Your task to perform on an android device: check android version Image 0: 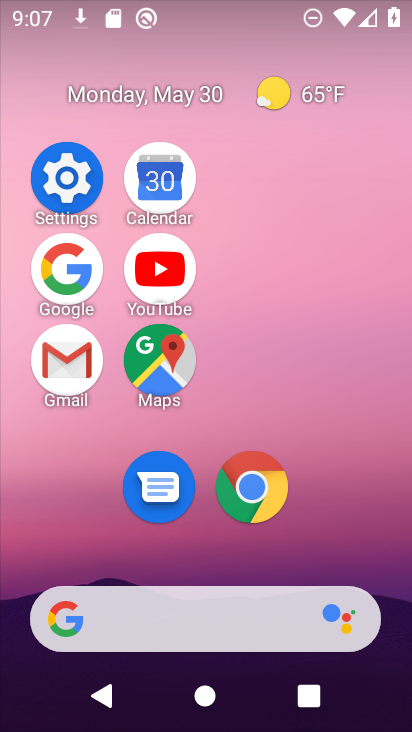
Step 0: click (80, 174)
Your task to perform on an android device: check android version Image 1: 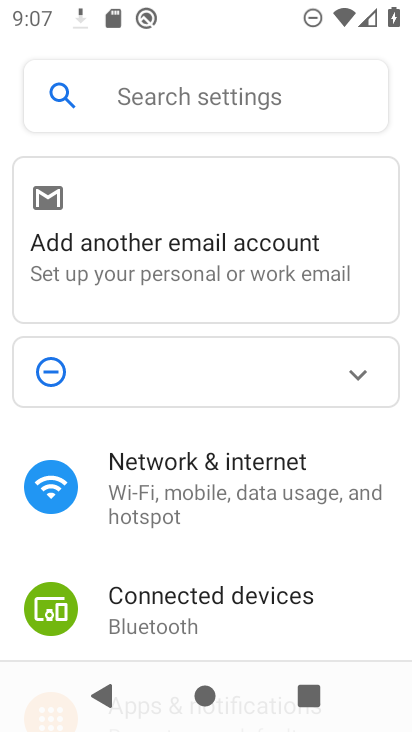
Step 1: drag from (199, 551) to (210, 182)
Your task to perform on an android device: check android version Image 2: 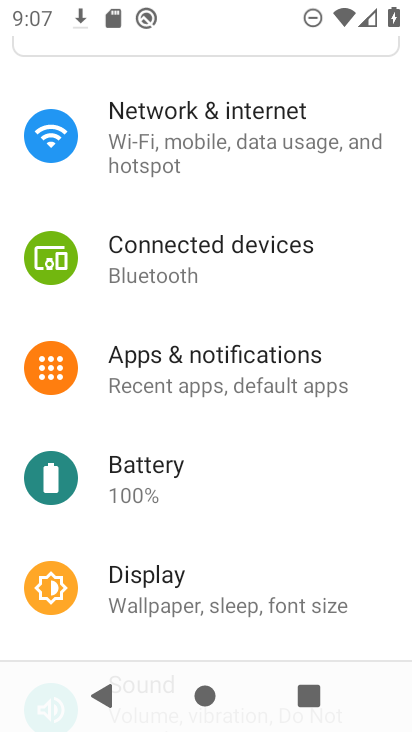
Step 2: drag from (231, 543) to (192, 259)
Your task to perform on an android device: check android version Image 3: 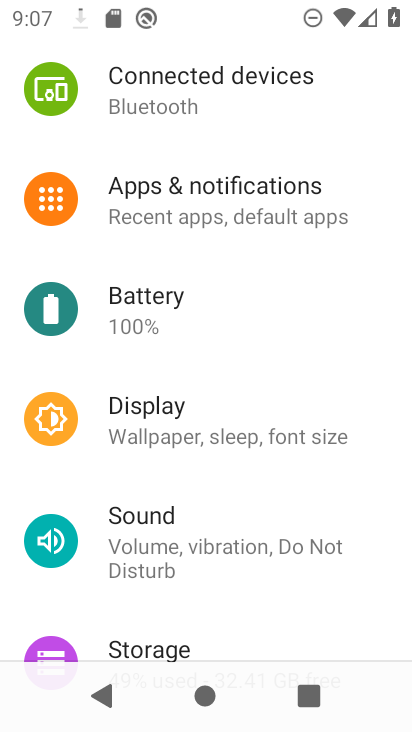
Step 3: drag from (224, 563) to (274, 220)
Your task to perform on an android device: check android version Image 4: 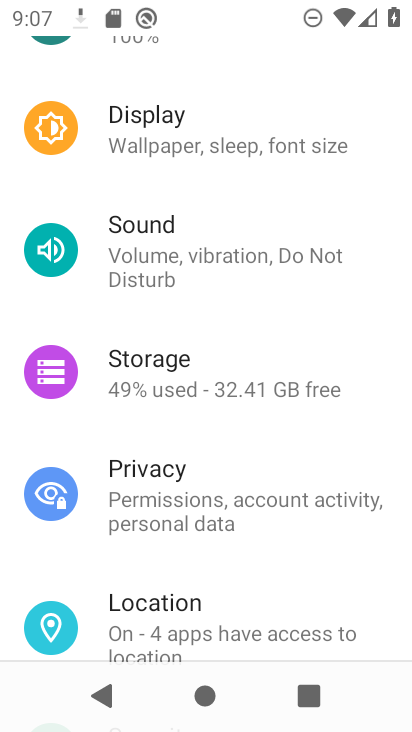
Step 4: drag from (256, 576) to (308, 216)
Your task to perform on an android device: check android version Image 5: 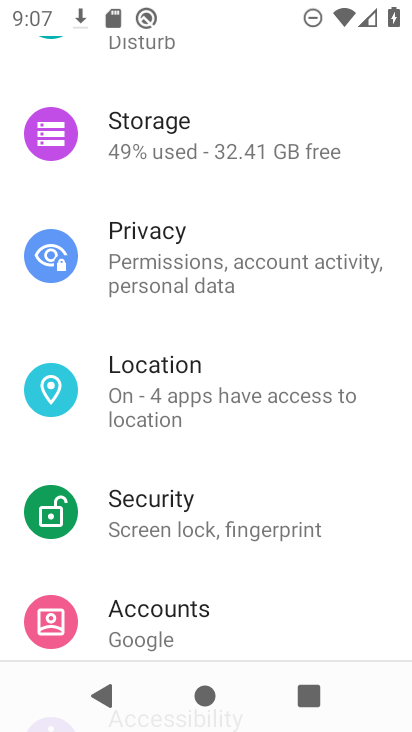
Step 5: drag from (258, 613) to (316, 183)
Your task to perform on an android device: check android version Image 6: 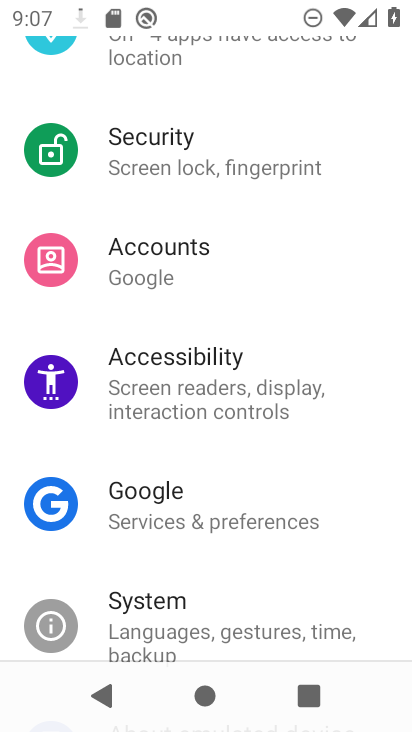
Step 6: drag from (265, 546) to (266, 224)
Your task to perform on an android device: check android version Image 7: 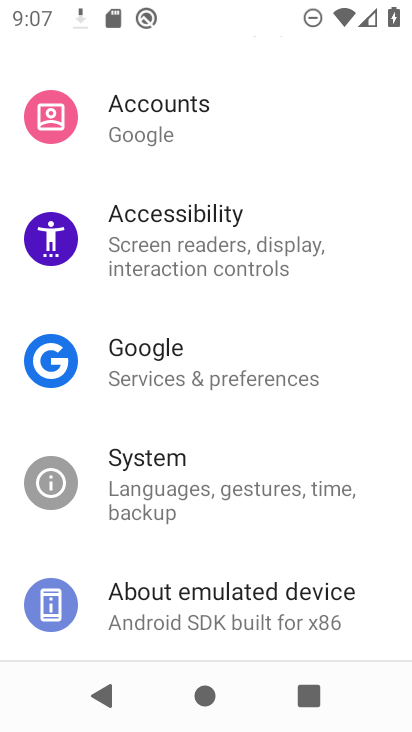
Step 7: click (242, 593)
Your task to perform on an android device: check android version Image 8: 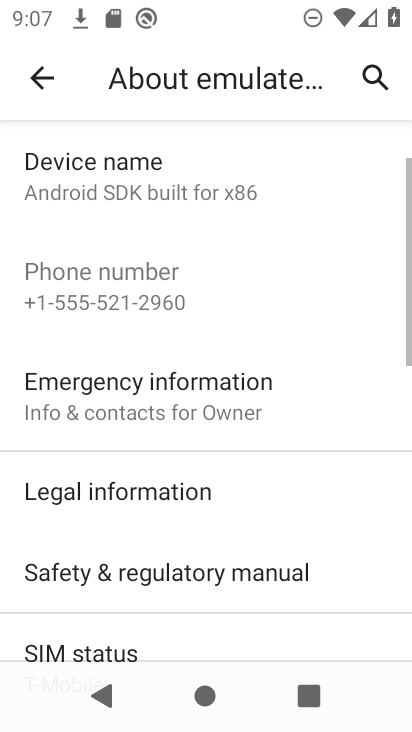
Step 8: drag from (242, 593) to (275, 260)
Your task to perform on an android device: check android version Image 9: 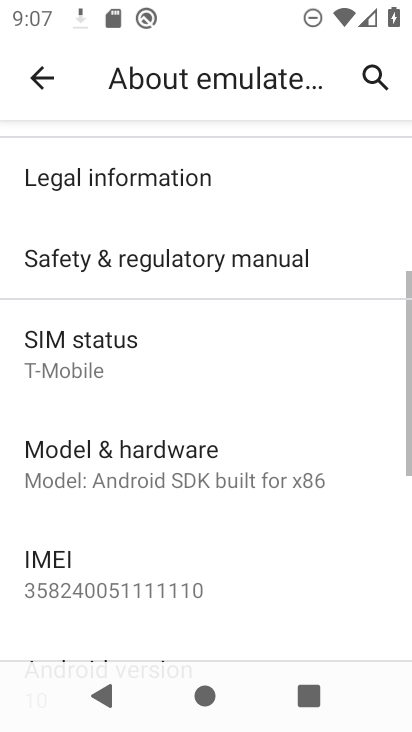
Step 9: drag from (253, 538) to (304, 207)
Your task to perform on an android device: check android version Image 10: 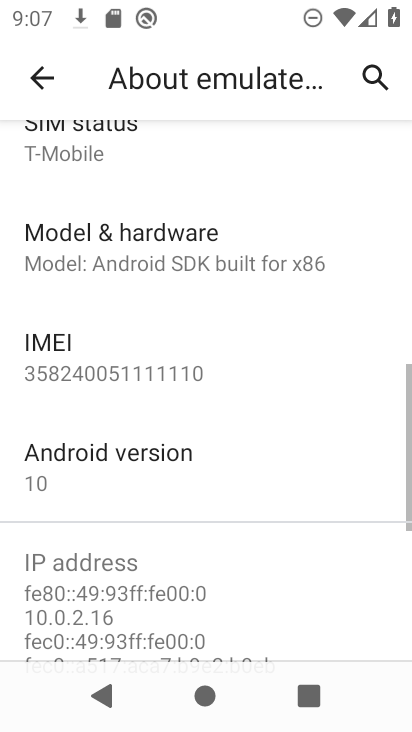
Step 10: click (265, 461)
Your task to perform on an android device: check android version Image 11: 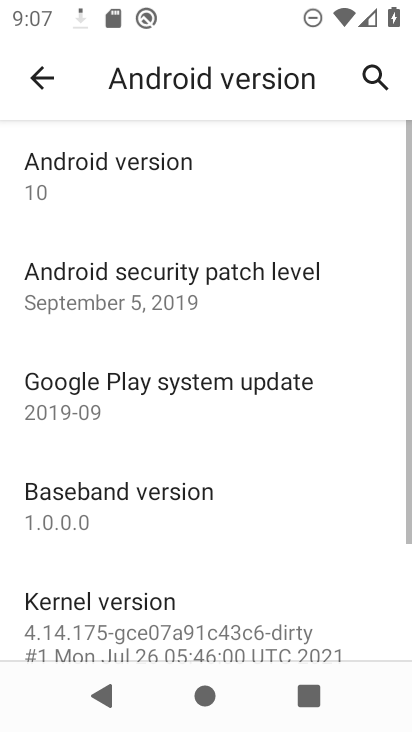
Step 11: task complete